Your task to perform on an android device: turn off priority inbox in the gmail app Image 0: 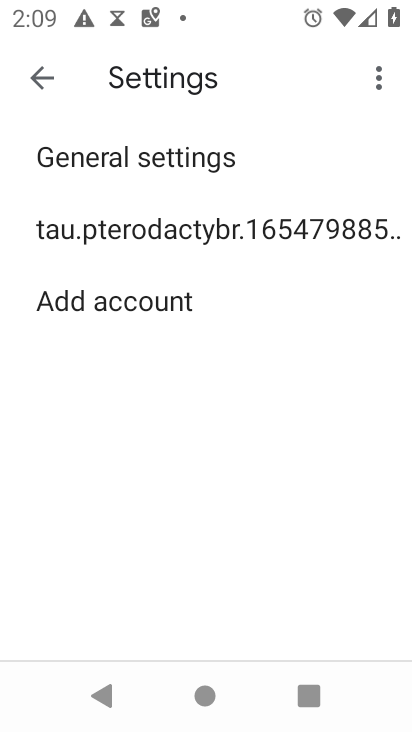
Step 0: press back button
Your task to perform on an android device: turn off priority inbox in the gmail app Image 1: 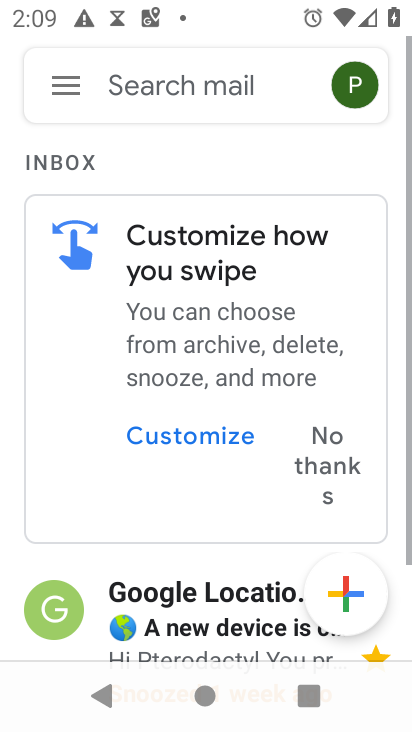
Step 1: press back button
Your task to perform on an android device: turn off priority inbox in the gmail app Image 2: 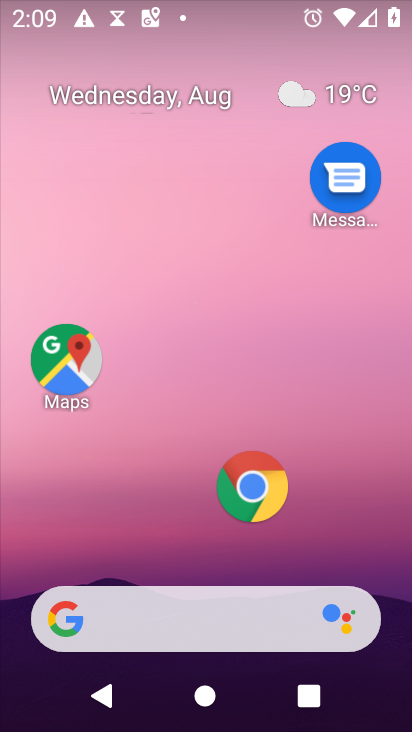
Step 2: drag from (130, 559) to (278, 0)
Your task to perform on an android device: turn off priority inbox in the gmail app Image 3: 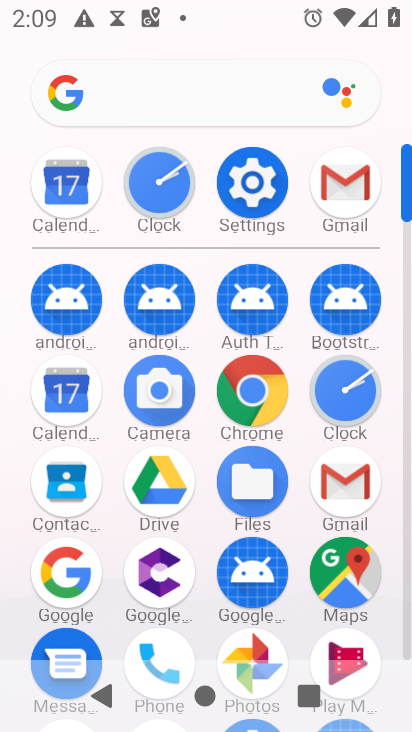
Step 3: click (358, 191)
Your task to perform on an android device: turn off priority inbox in the gmail app Image 4: 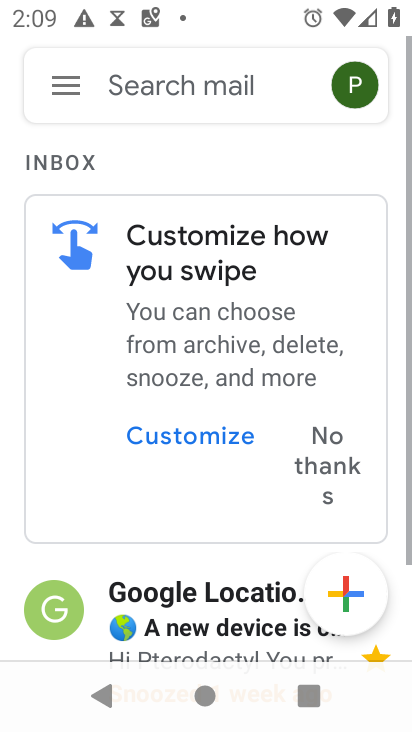
Step 4: click (51, 77)
Your task to perform on an android device: turn off priority inbox in the gmail app Image 5: 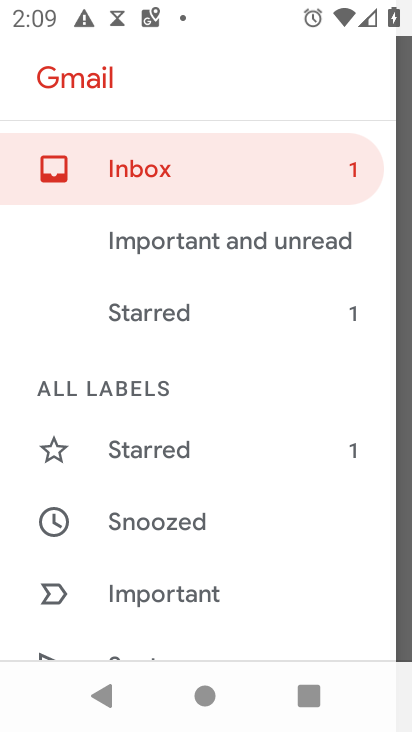
Step 5: drag from (209, 623) to (279, 15)
Your task to perform on an android device: turn off priority inbox in the gmail app Image 6: 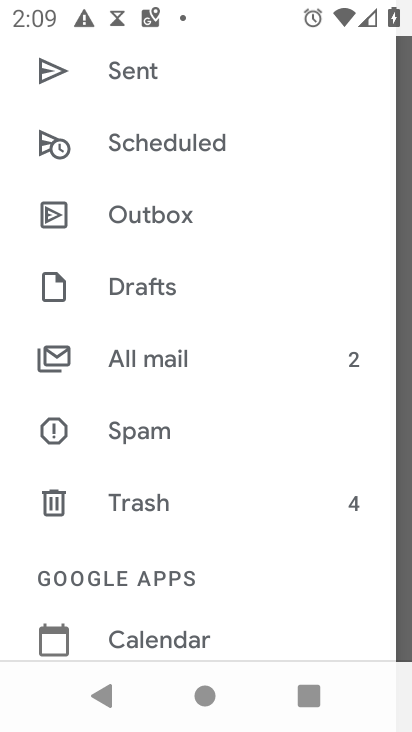
Step 6: drag from (185, 595) to (290, 10)
Your task to perform on an android device: turn off priority inbox in the gmail app Image 7: 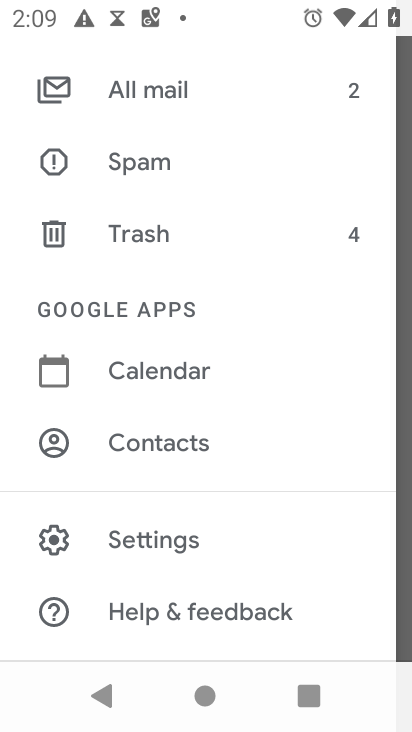
Step 7: click (137, 559)
Your task to perform on an android device: turn off priority inbox in the gmail app Image 8: 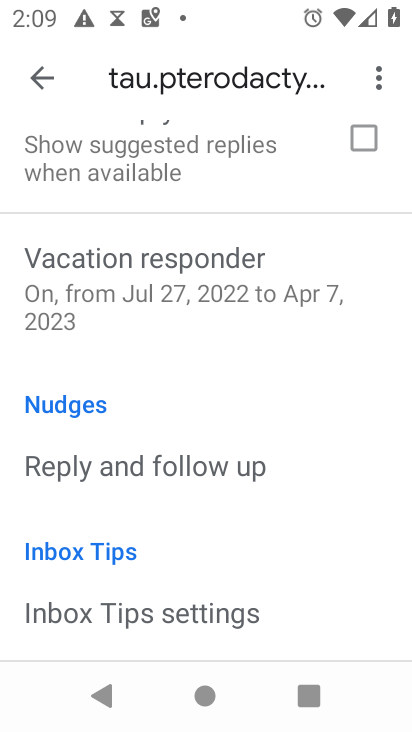
Step 8: press back button
Your task to perform on an android device: turn off priority inbox in the gmail app Image 9: 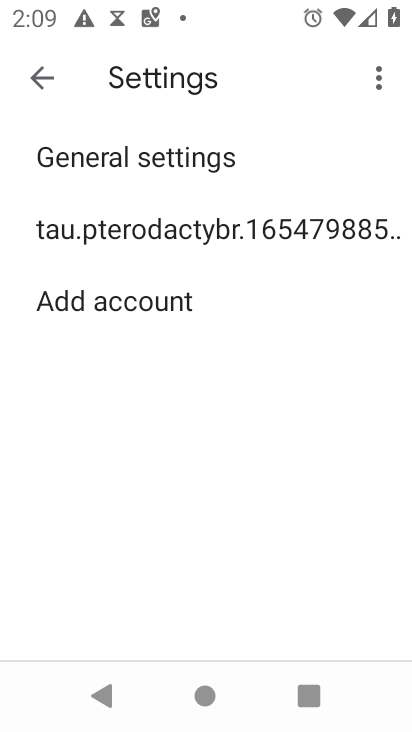
Step 9: click (166, 223)
Your task to perform on an android device: turn off priority inbox in the gmail app Image 10: 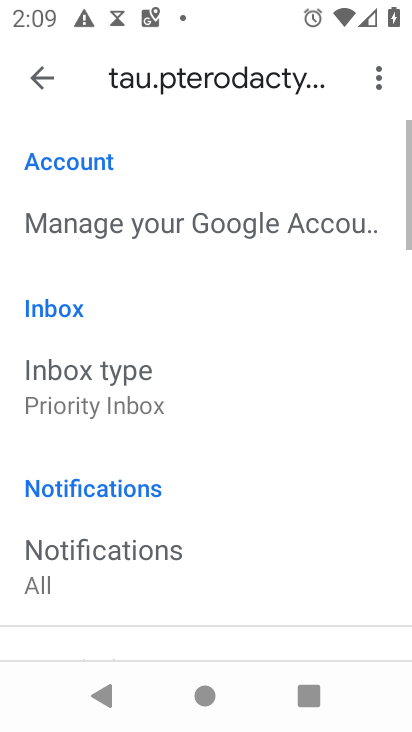
Step 10: click (129, 392)
Your task to perform on an android device: turn off priority inbox in the gmail app Image 11: 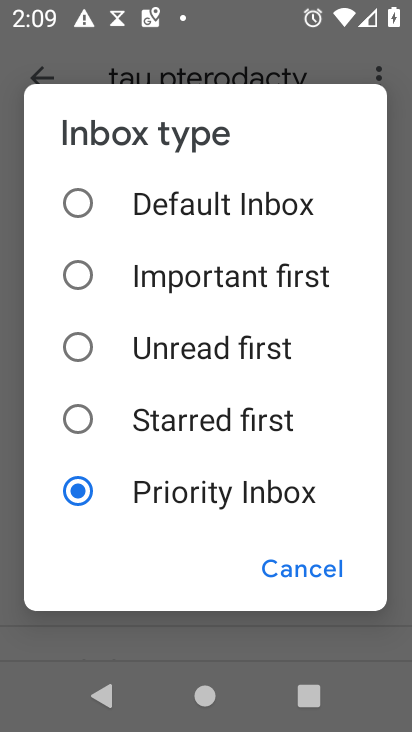
Step 11: click (77, 198)
Your task to perform on an android device: turn off priority inbox in the gmail app Image 12: 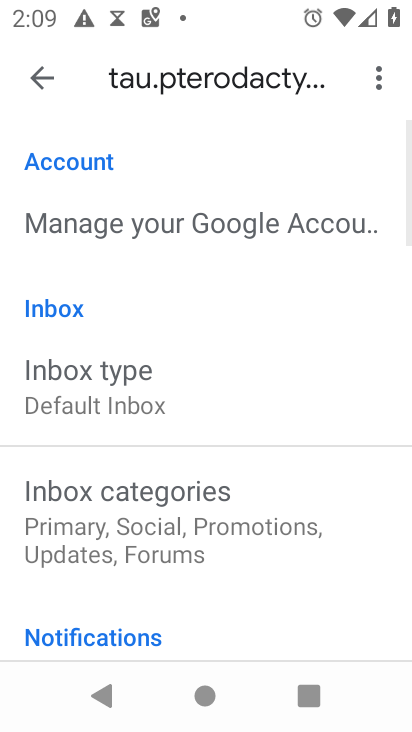
Step 12: task complete